Your task to perform on an android device: Search for Italian restaurants on Maps Image 0: 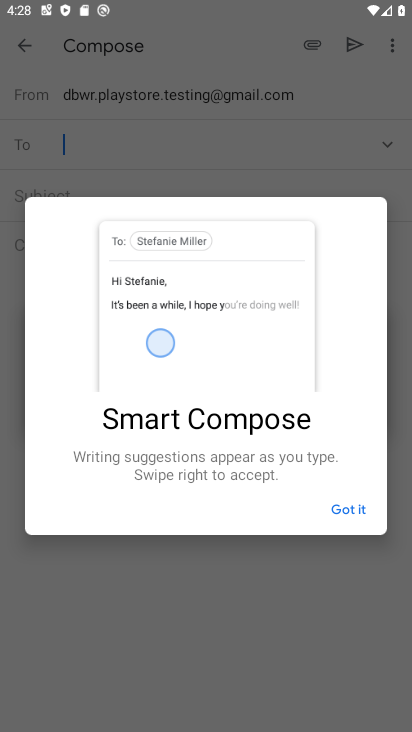
Step 0: press home button
Your task to perform on an android device: Search for Italian restaurants on Maps Image 1: 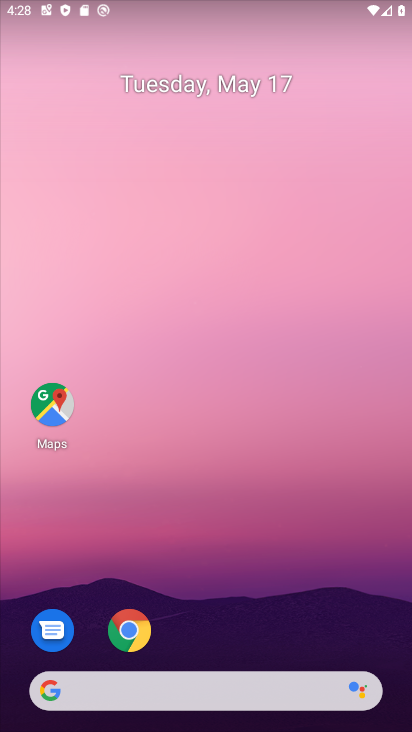
Step 1: drag from (226, 718) to (226, 262)
Your task to perform on an android device: Search for Italian restaurants on Maps Image 2: 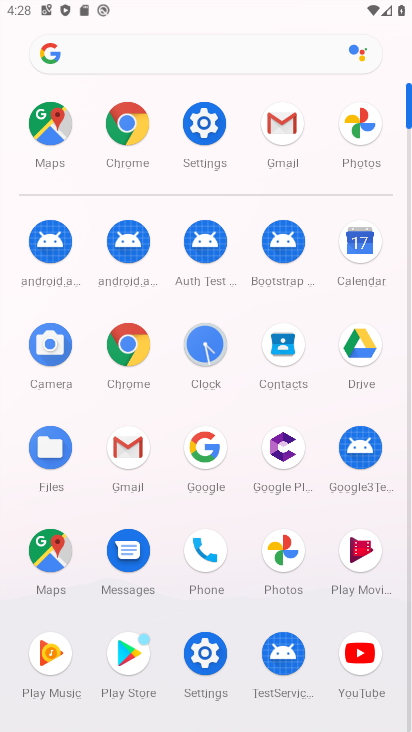
Step 2: click (52, 550)
Your task to perform on an android device: Search for Italian restaurants on Maps Image 3: 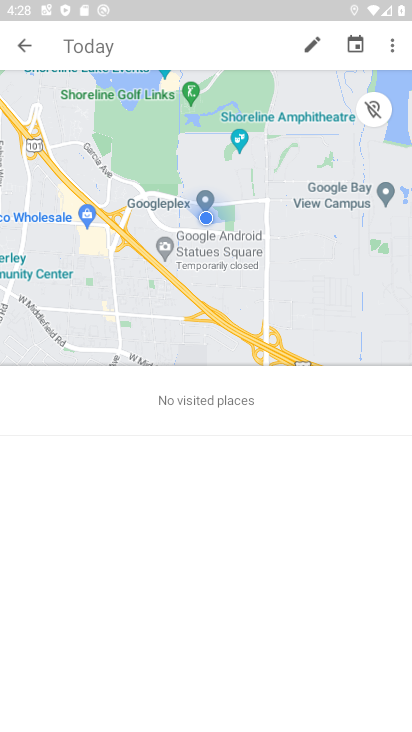
Step 3: click (18, 45)
Your task to perform on an android device: Search for Italian restaurants on Maps Image 4: 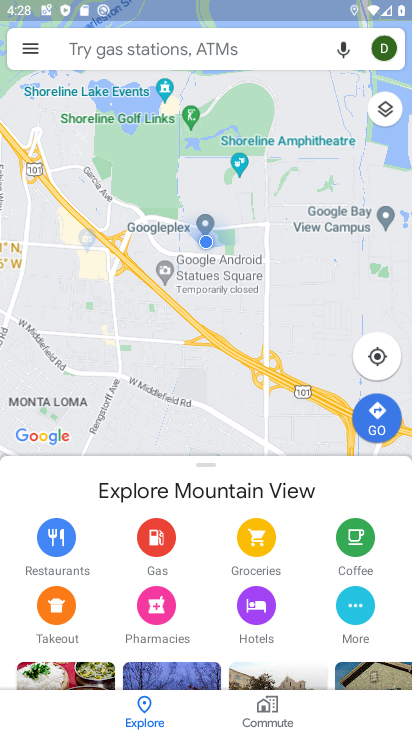
Step 4: click (199, 47)
Your task to perform on an android device: Search for Italian restaurants on Maps Image 5: 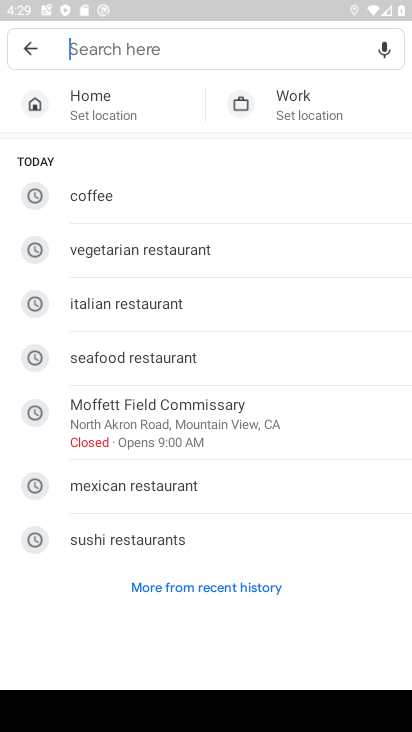
Step 5: type "Italian  restaurants"
Your task to perform on an android device: Search for Italian restaurants on Maps Image 6: 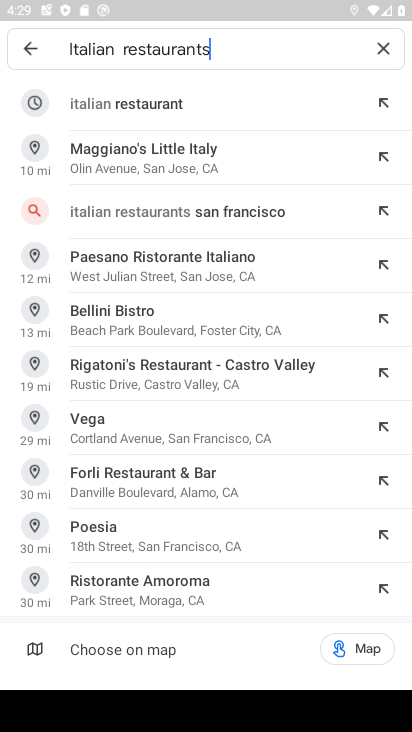
Step 6: click (140, 100)
Your task to perform on an android device: Search for Italian restaurants on Maps Image 7: 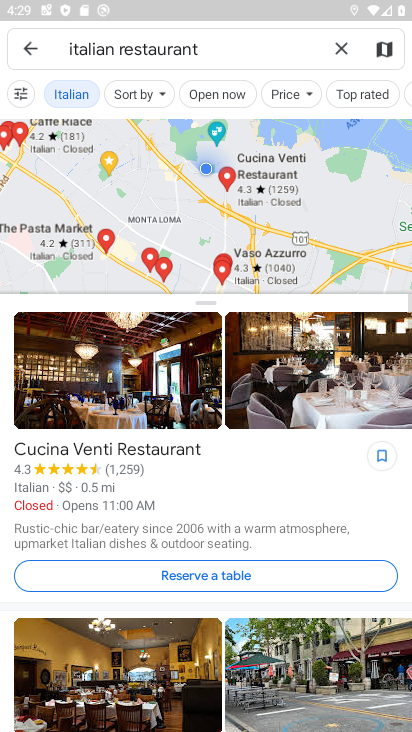
Step 7: task complete